Your task to perform on an android device: Do I have any events tomorrow? Image 0: 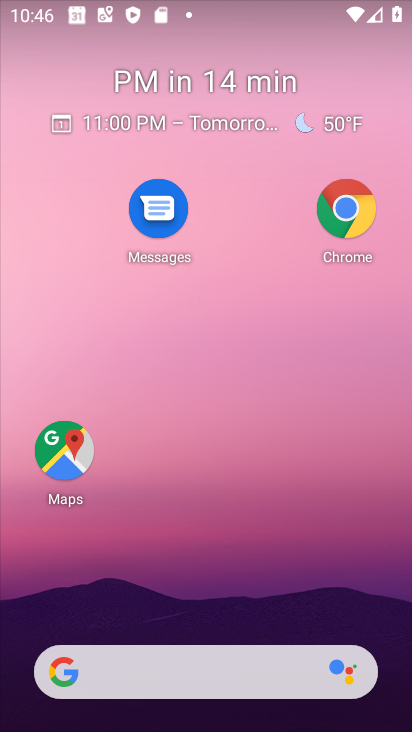
Step 0: drag from (197, 632) to (407, 367)
Your task to perform on an android device: Do I have any events tomorrow? Image 1: 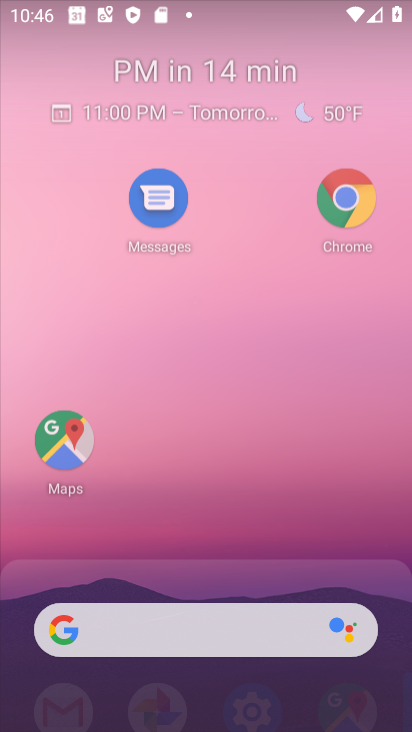
Step 1: click (67, 403)
Your task to perform on an android device: Do I have any events tomorrow? Image 2: 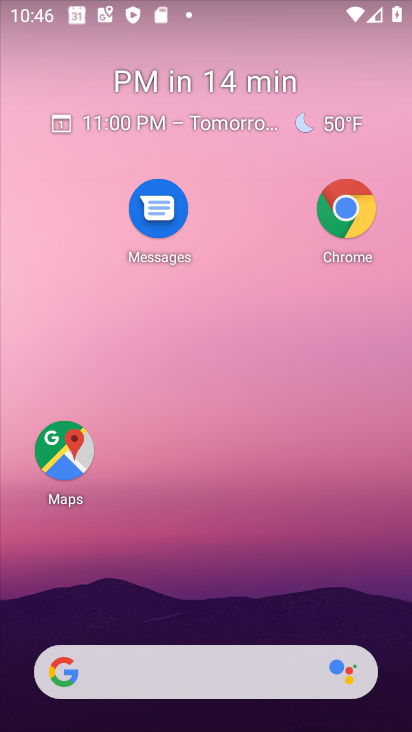
Step 2: drag from (227, 570) to (207, 19)
Your task to perform on an android device: Do I have any events tomorrow? Image 3: 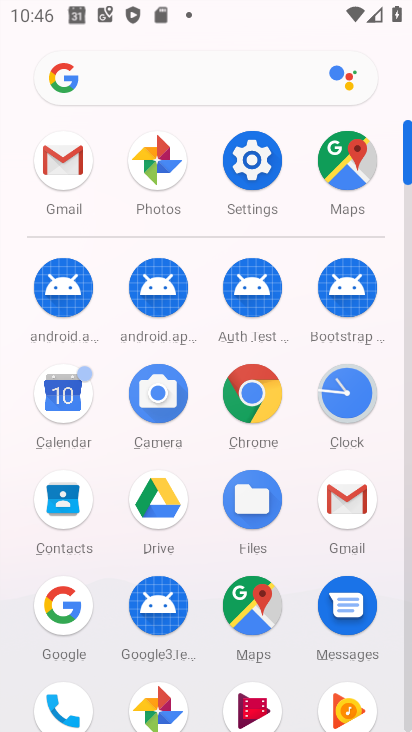
Step 3: click (57, 408)
Your task to perform on an android device: Do I have any events tomorrow? Image 4: 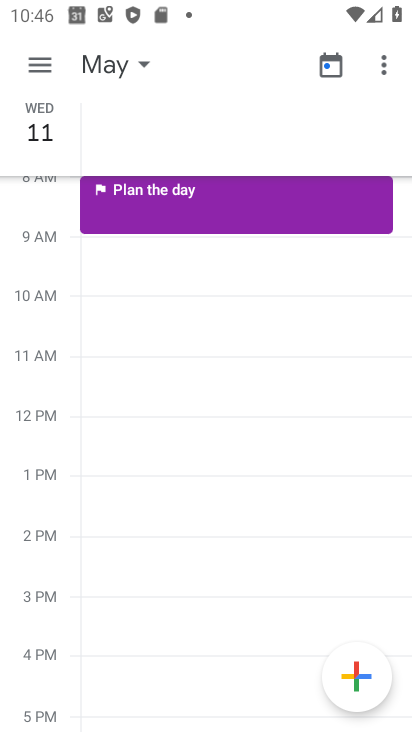
Step 4: click (47, 56)
Your task to perform on an android device: Do I have any events tomorrow? Image 5: 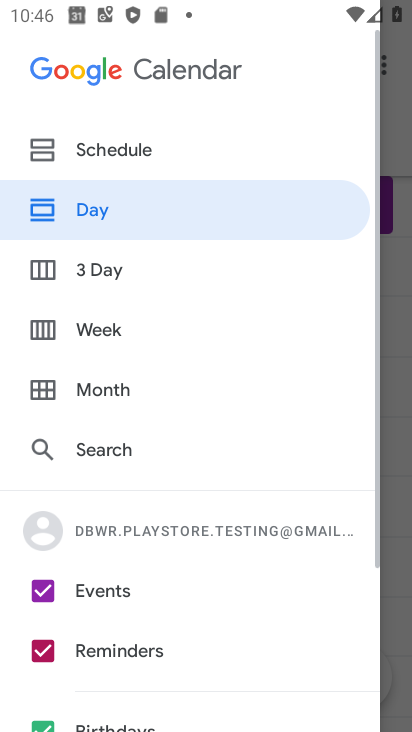
Step 5: click (130, 260)
Your task to perform on an android device: Do I have any events tomorrow? Image 6: 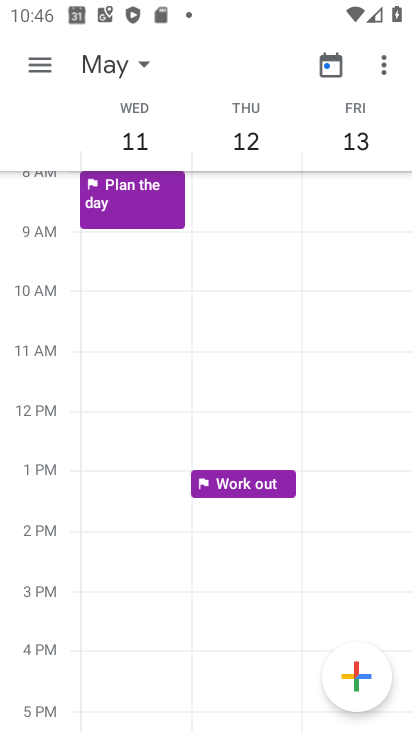
Step 6: click (330, 65)
Your task to perform on an android device: Do I have any events tomorrow? Image 7: 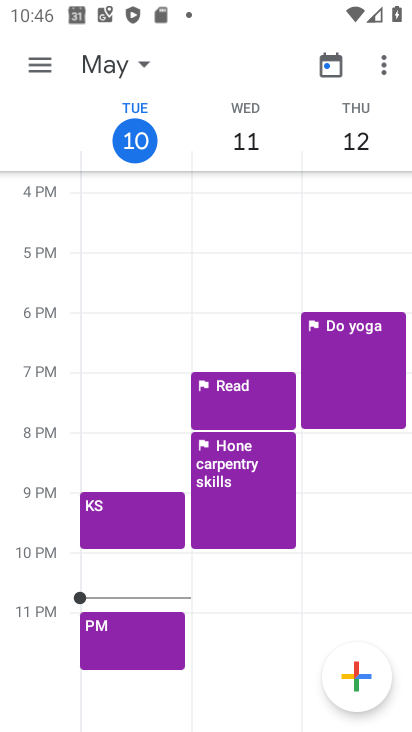
Step 7: click (243, 148)
Your task to perform on an android device: Do I have any events tomorrow? Image 8: 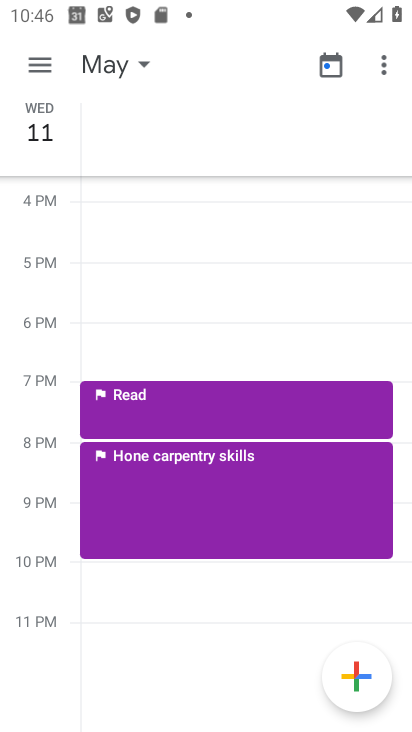
Step 8: task complete